Your task to perform on an android device: Open Wikipedia Image 0: 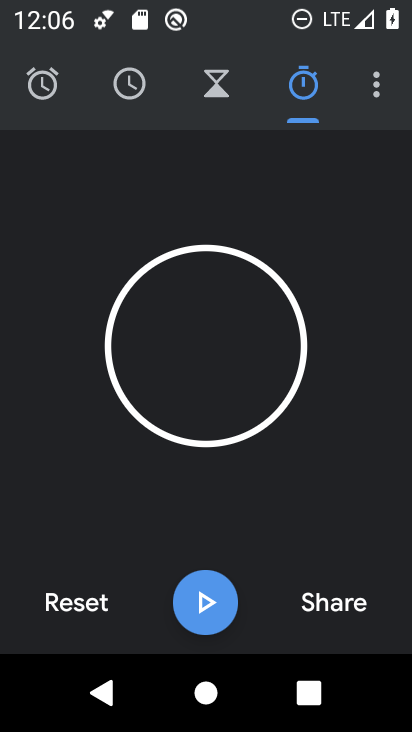
Step 0: press home button
Your task to perform on an android device: Open Wikipedia Image 1: 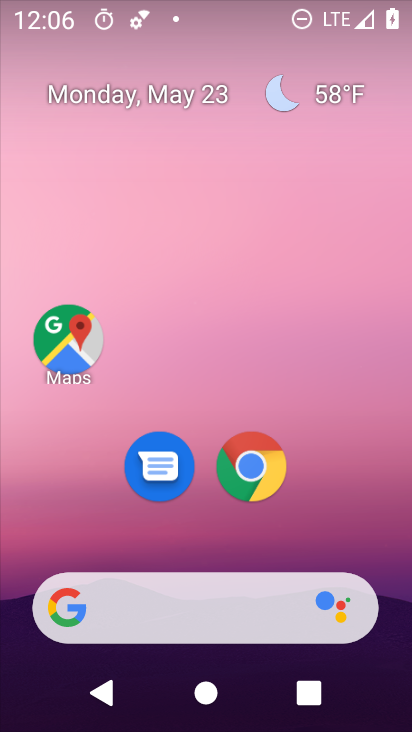
Step 1: click (250, 469)
Your task to perform on an android device: Open Wikipedia Image 2: 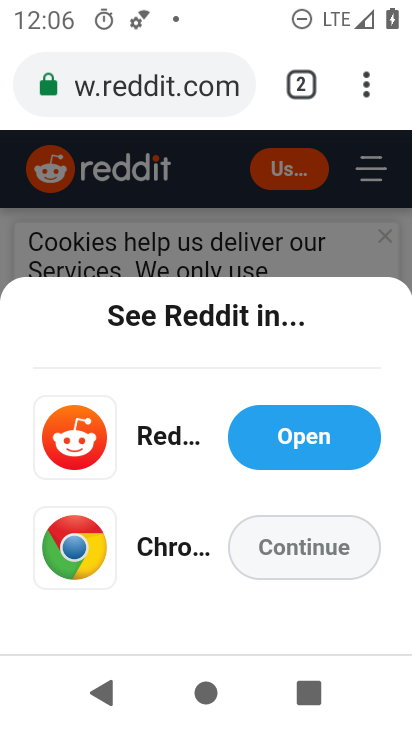
Step 2: task complete